Your task to perform on an android device: Open calendar and show me the fourth week of next month Image 0: 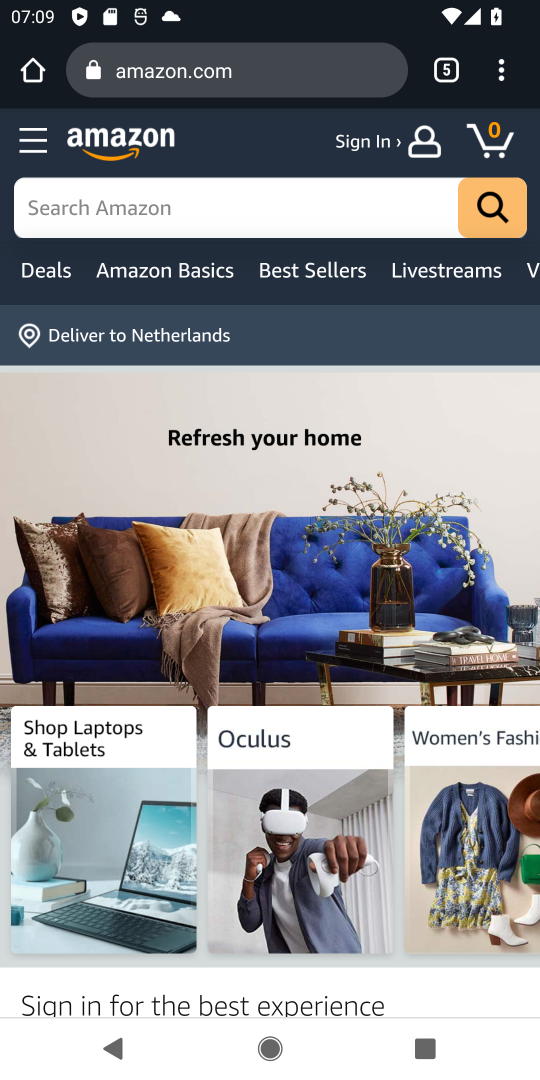
Step 0: press home button
Your task to perform on an android device: Open calendar and show me the fourth week of next month Image 1: 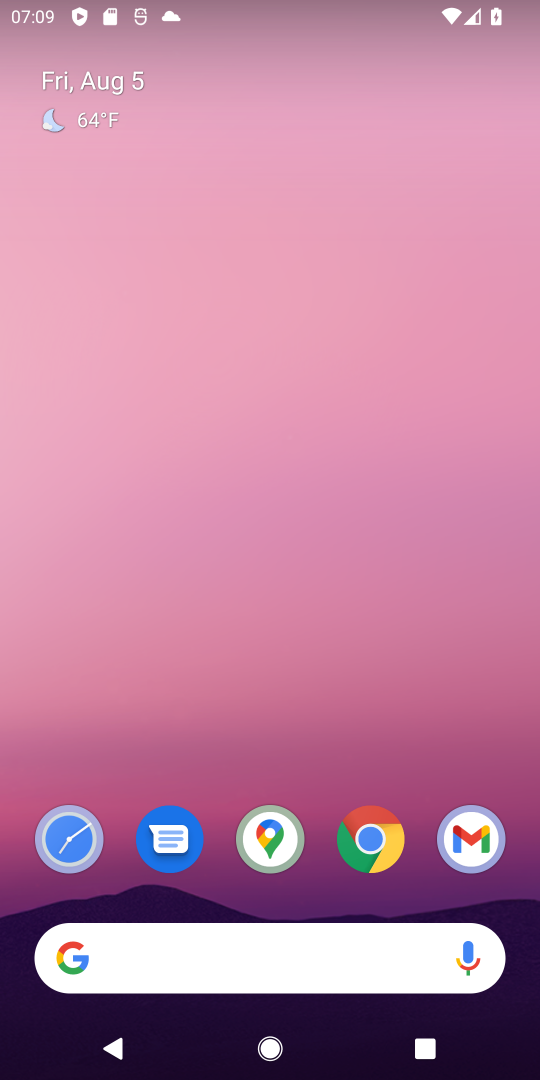
Step 1: drag from (316, 803) to (314, 77)
Your task to perform on an android device: Open calendar and show me the fourth week of next month Image 2: 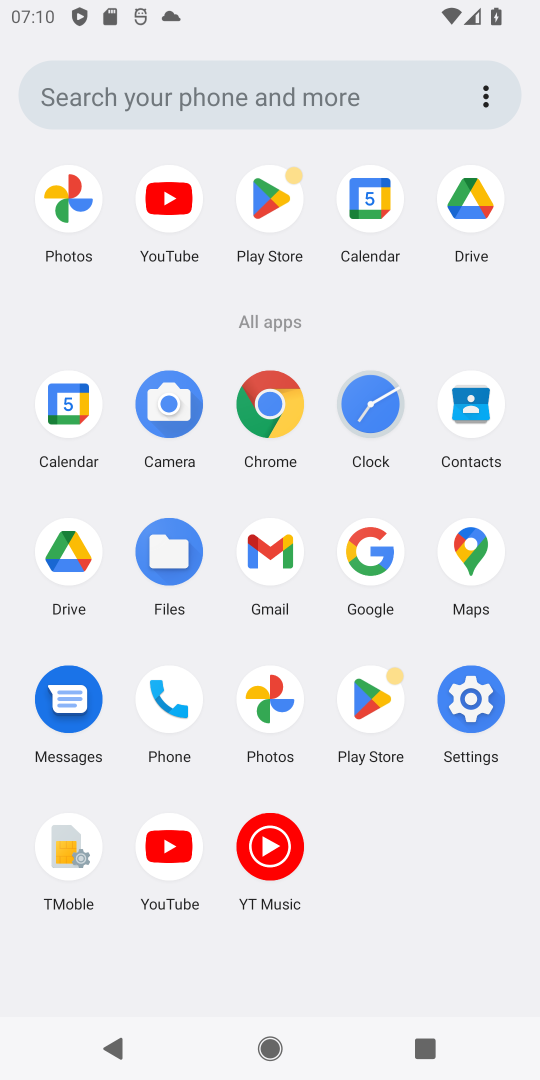
Step 2: click (61, 407)
Your task to perform on an android device: Open calendar and show me the fourth week of next month Image 3: 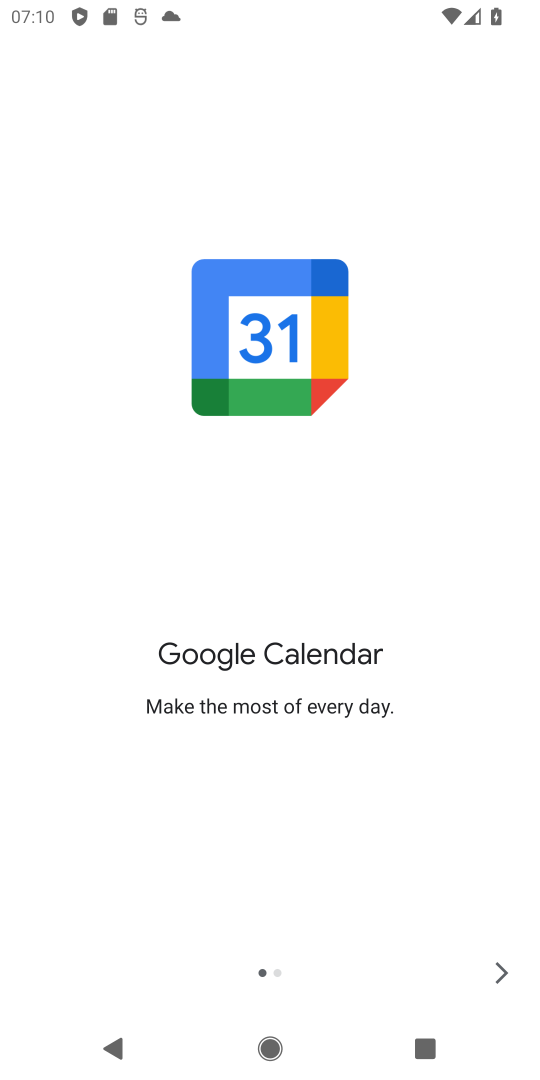
Step 3: click (511, 968)
Your task to perform on an android device: Open calendar and show me the fourth week of next month Image 4: 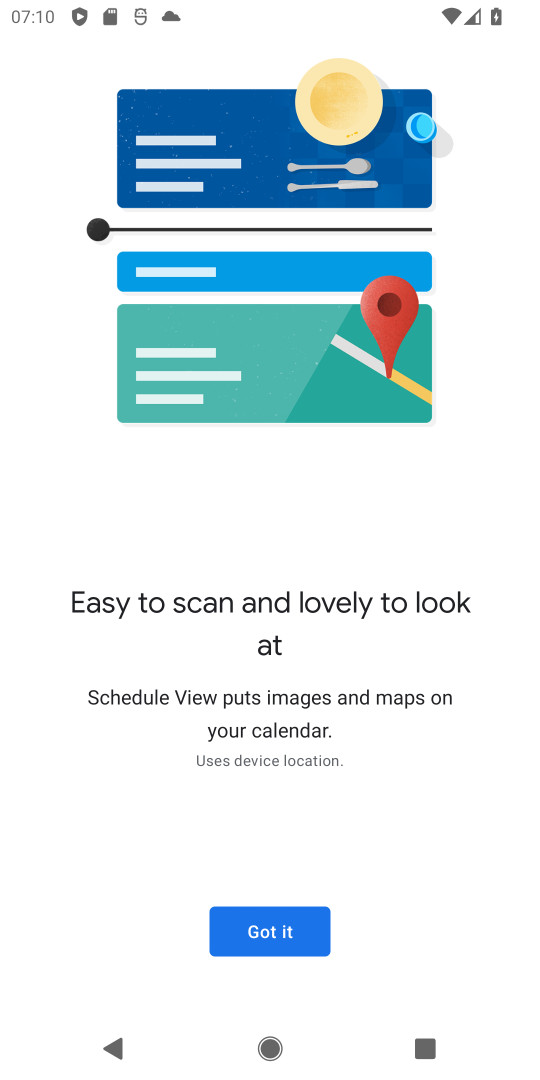
Step 4: click (286, 929)
Your task to perform on an android device: Open calendar and show me the fourth week of next month Image 5: 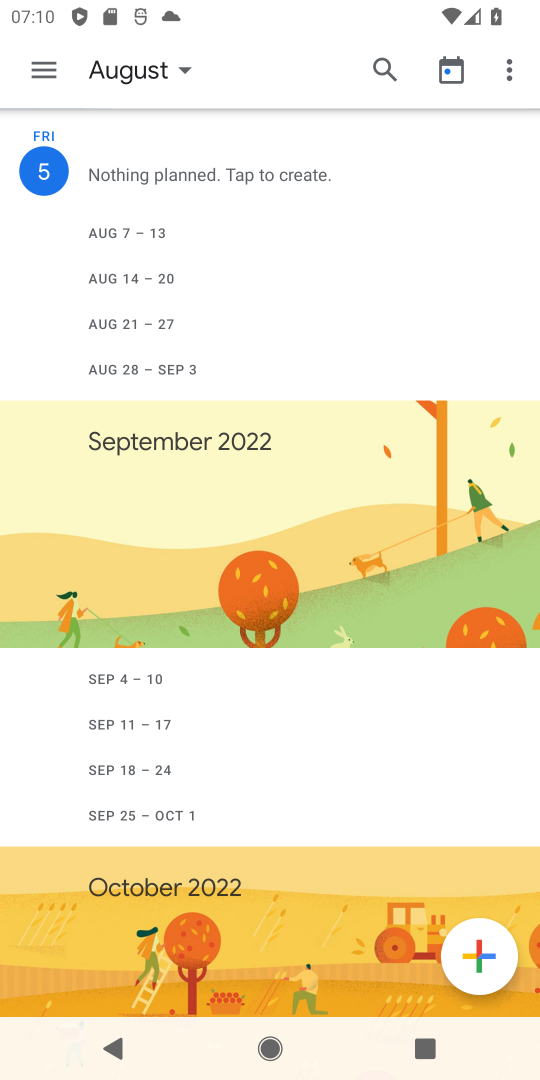
Step 5: click (182, 73)
Your task to perform on an android device: Open calendar and show me the fourth week of next month Image 6: 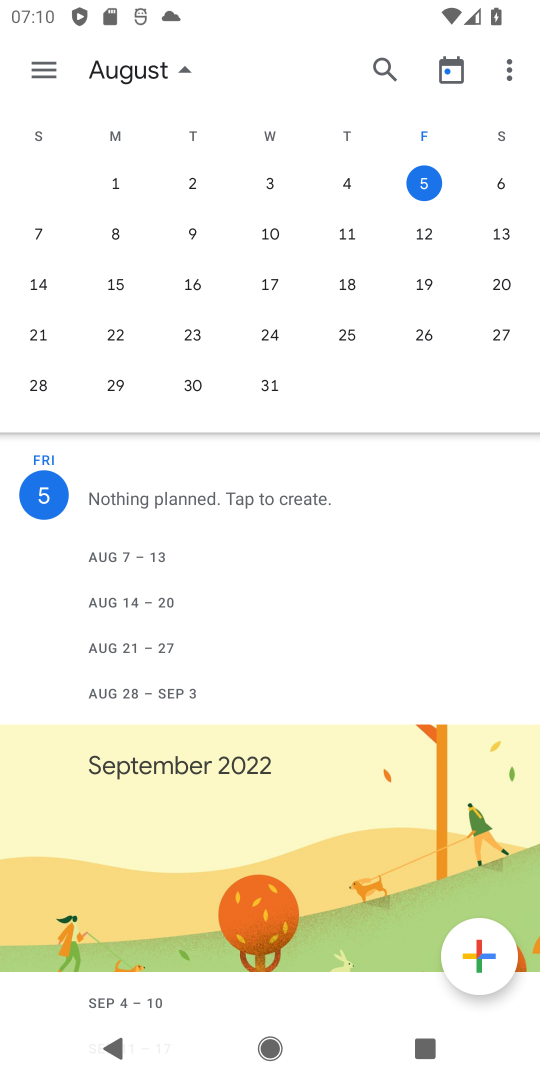
Step 6: click (111, 333)
Your task to perform on an android device: Open calendar and show me the fourth week of next month Image 7: 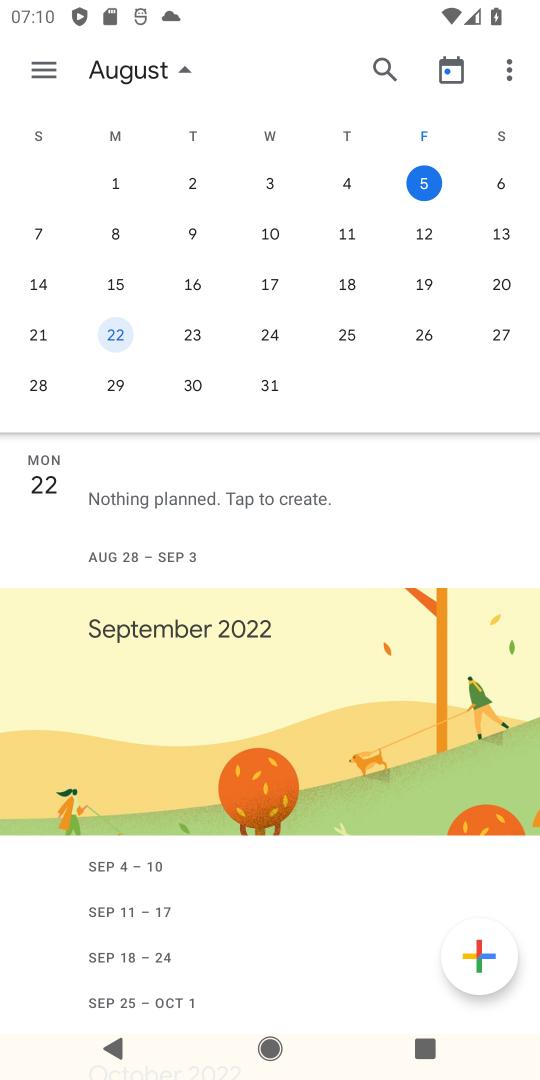
Step 7: click (46, 65)
Your task to perform on an android device: Open calendar and show me the fourth week of next month Image 8: 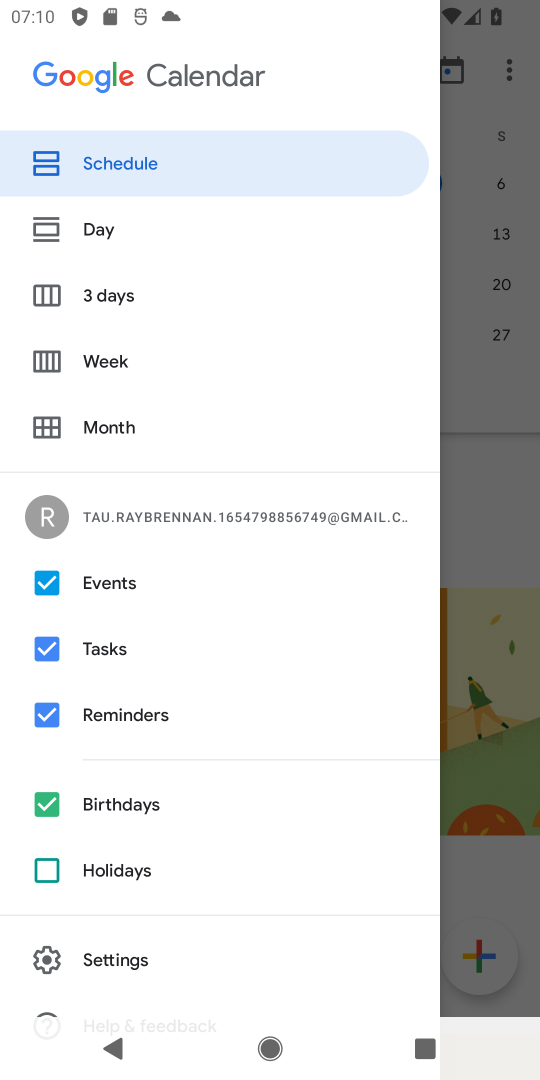
Step 8: click (95, 354)
Your task to perform on an android device: Open calendar and show me the fourth week of next month Image 9: 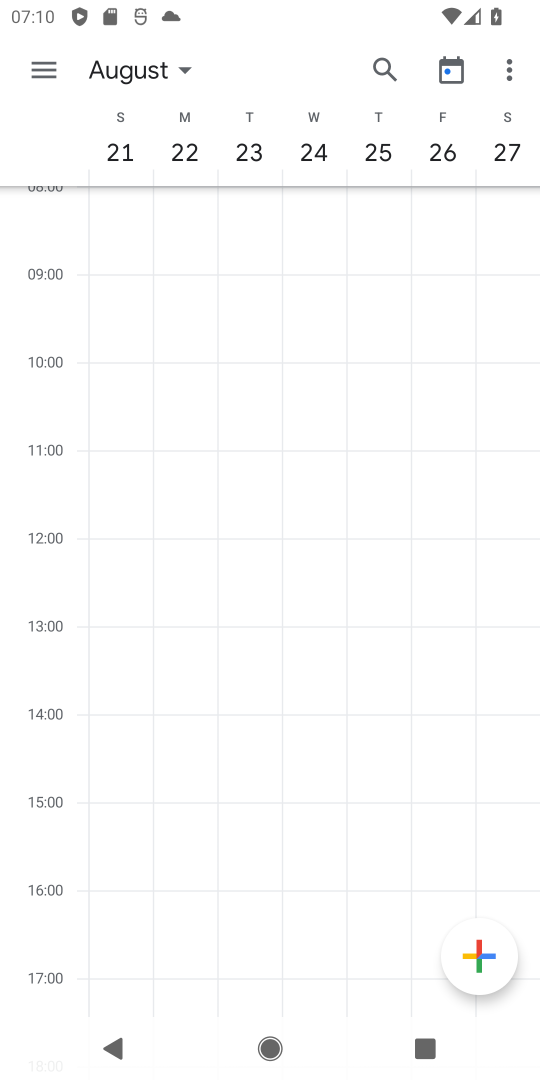
Step 9: task complete